Your task to perform on an android device: Open settings on Google Maps Image 0: 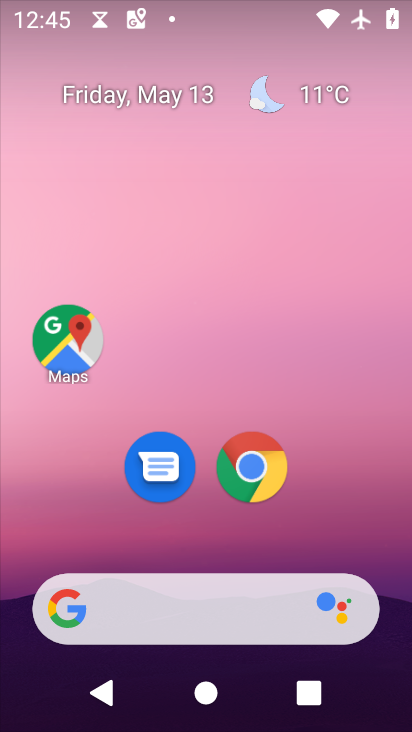
Step 0: click (67, 334)
Your task to perform on an android device: Open settings on Google Maps Image 1: 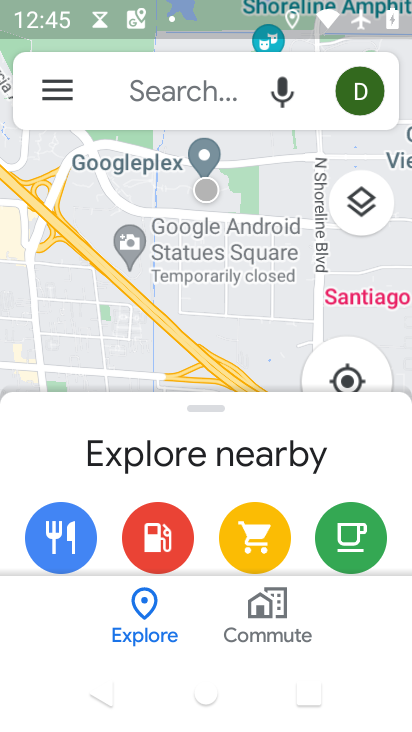
Step 1: click (66, 72)
Your task to perform on an android device: Open settings on Google Maps Image 2: 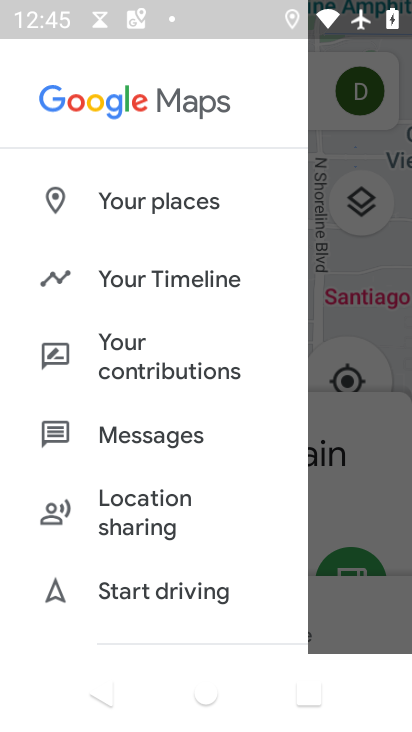
Step 2: drag from (167, 498) to (137, 107)
Your task to perform on an android device: Open settings on Google Maps Image 3: 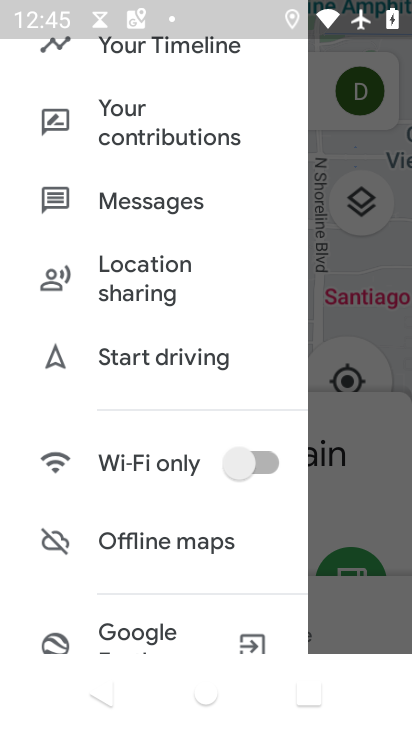
Step 3: drag from (146, 610) to (122, 189)
Your task to perform on an android device: Open settings on Google Maps Image 4: 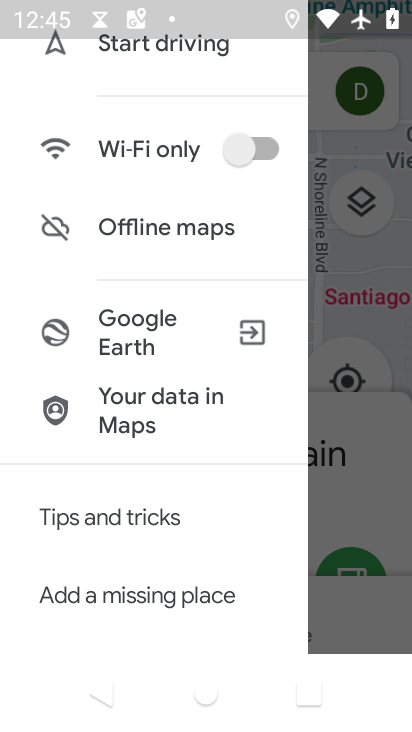
Step 4: drag from (138, 518) to (127, 209)
Your task to perform on an android device: Open settings on Google Maps Image 5: 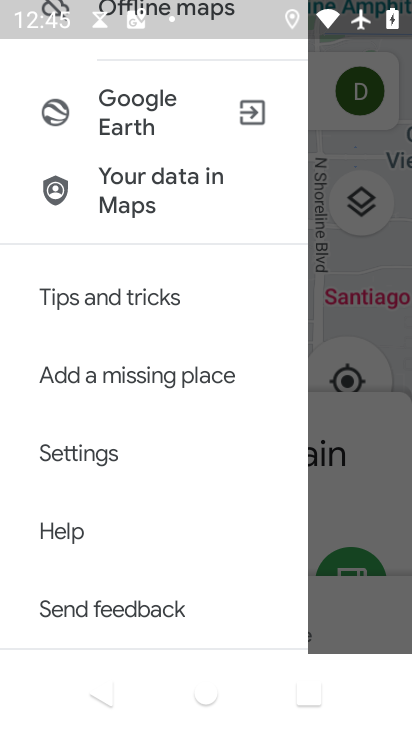
Step 5: click (101, 460)
Your task to perform on an android device: Open settings on Google Maps Image 6: 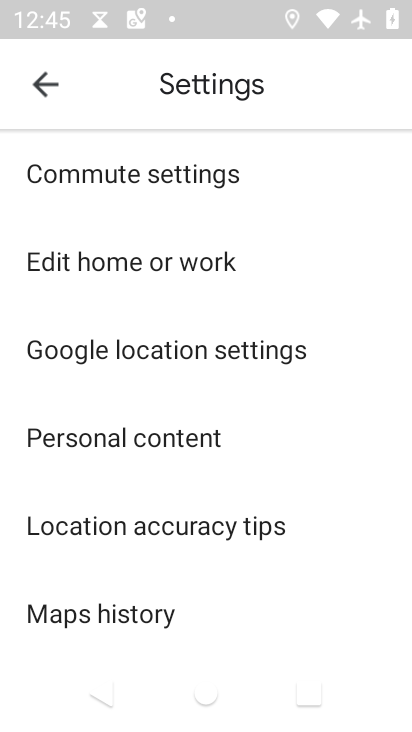
Step 6: task complete